Your task to perform on an android device: open app "Speedtest by Ookla" Image 0: 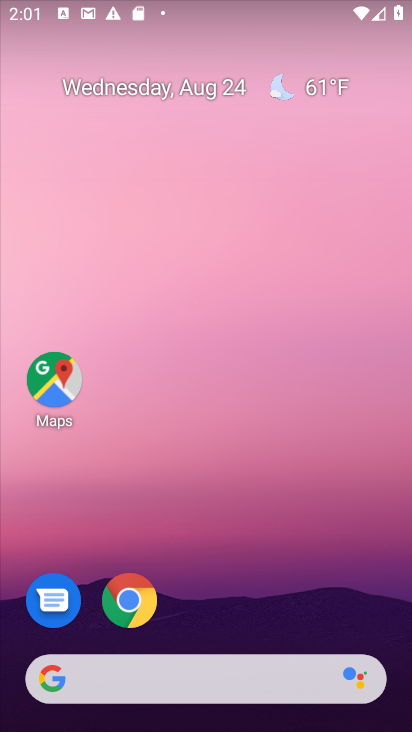
Step 0: drag from (286, 616) to (250, 57)
Your task to perform on an android device: open app "Speedtest by Ookla" Image 1: 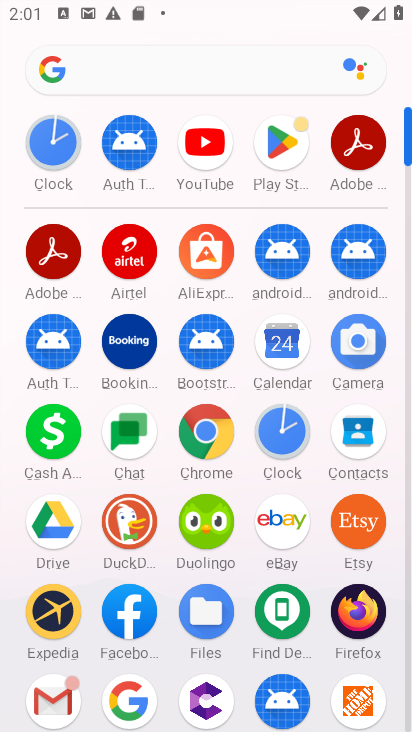
Step 1: click (274, 124)
Your task to perform on an android device: open app "Speedtest by Ookla" Image 2: 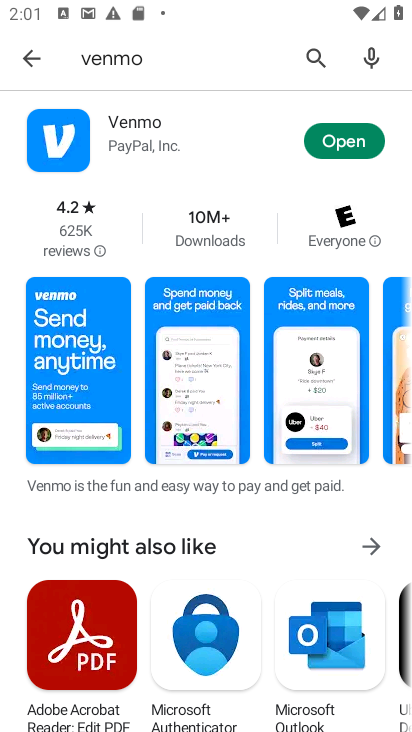
Step 2: click (318, 70)
Your task to perform on an android device: open app "Speedtest by Ookla" Image 3: 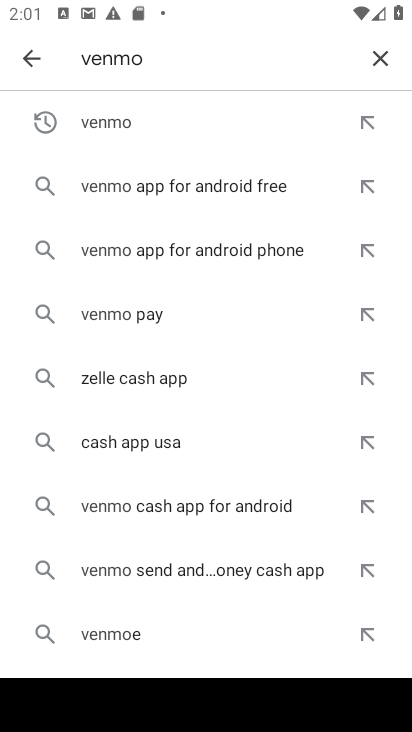
Step 3: click (383, 68)
Your task to perform on an android device: open app "Speedtest by Ookla" Image 4: 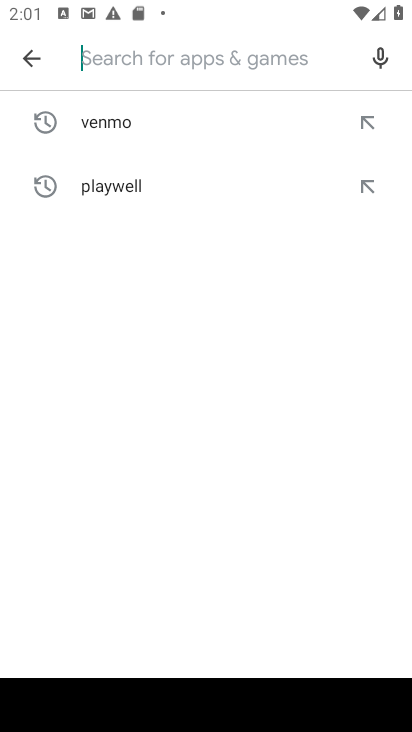
Step 4: type "speedtest"
Your task to perform on an android device: open app "Speedtest by Ookla" Image 5: 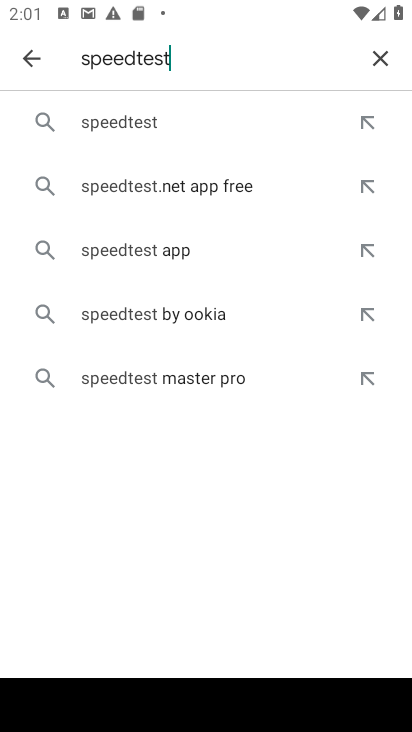
Step 5: click (115, 128)
Your task to perform on an android device: open app "Speedtest by Ookla" Image 6: 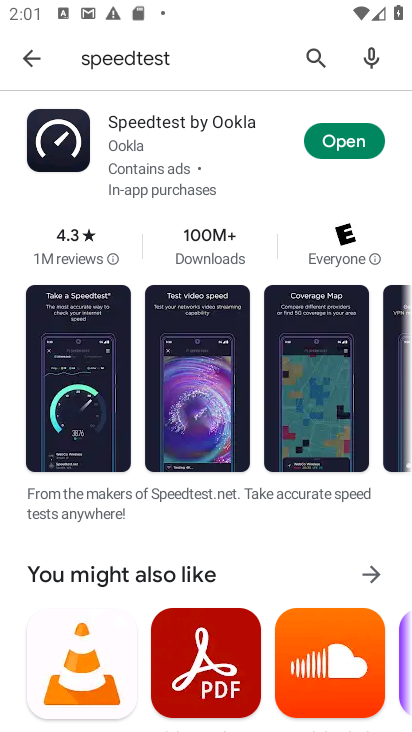
Step 6: click (344, 147)
Your task to perform on an android device: open app "Speedtest by Ookla" Image 7: 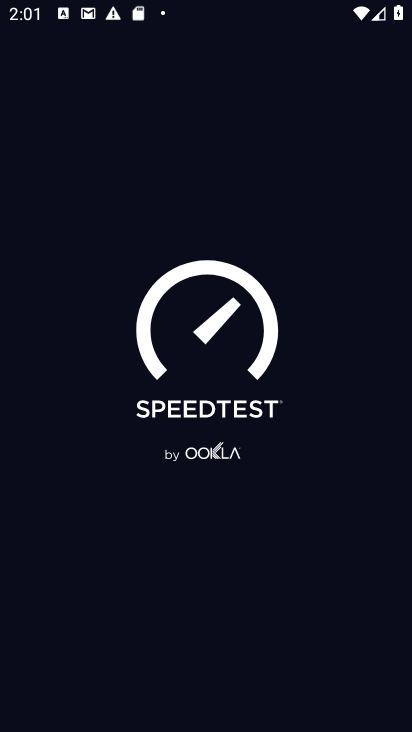
Step 7: task complete